Your task to perform on an android device: toggle pop-ups in chrome Image 0: 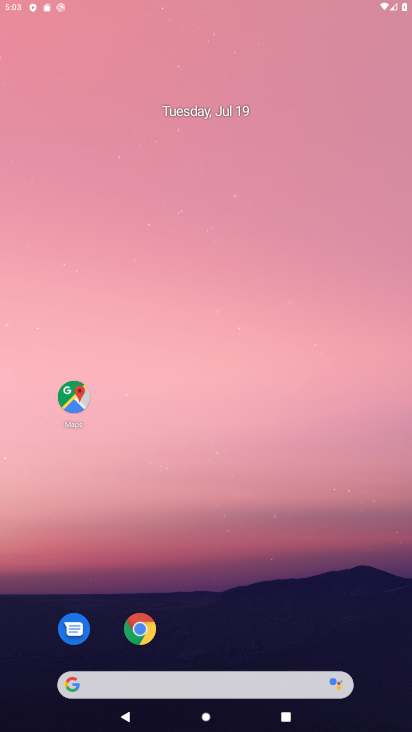
Step 0: press home button
Your task to perform on an android device: toggle pop-ups in chrome Image 1: 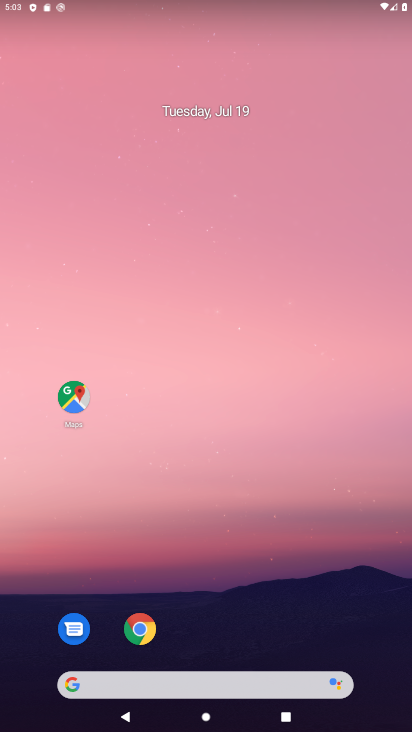
Step 1: drag from (214, 631) to (233, 21)
Your task to perform on an android device: toggle pop-ups in chrome Image 2: 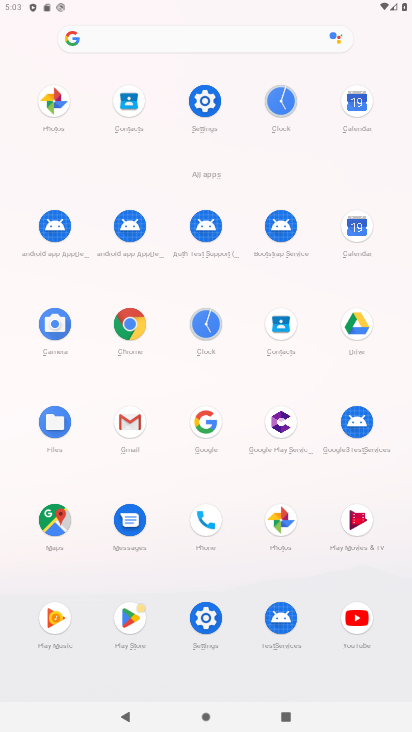
Step 2: click (128, 322)
Your task to perform on an android device: toggle pop-ups in chrome Image 3: 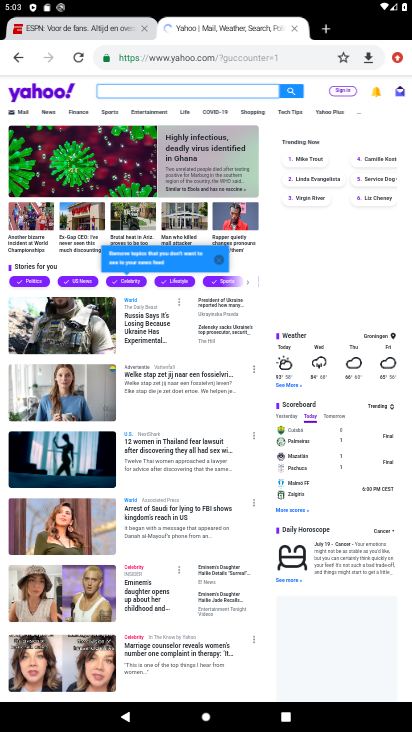
Step 3: drag from (394, 61) to (287, 423)
Your task to perform on an android device: toggle pop-ups in chrome Image 4: 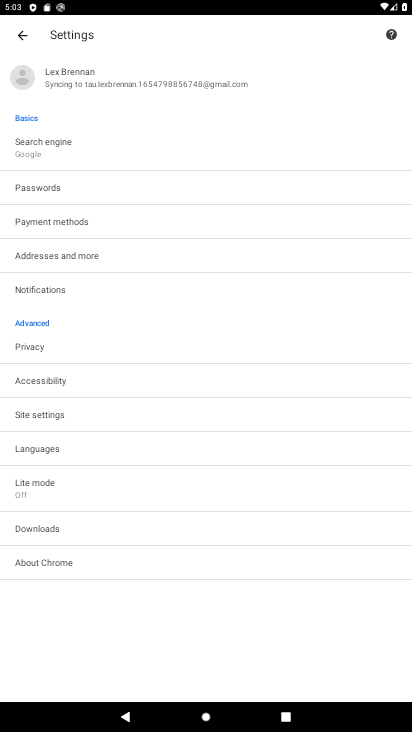
Step 4: click (42, 413)
Your task to perform on an android device: toggle pop-ups in chrome Image 5: 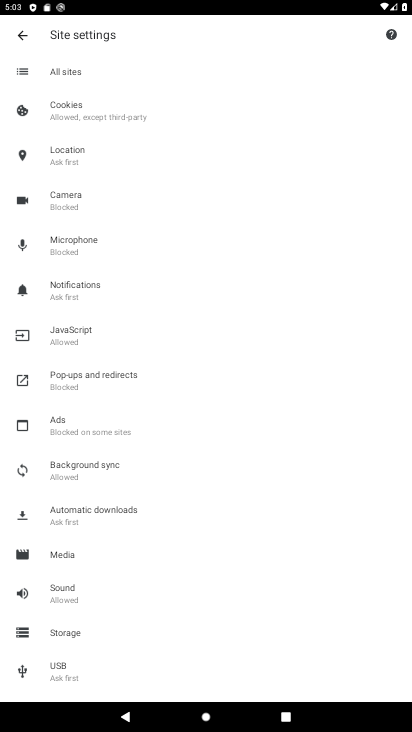
Step 5: click (85, 380)
Your task to perform on an android device: toggle pop-ups in chrome Image 6: 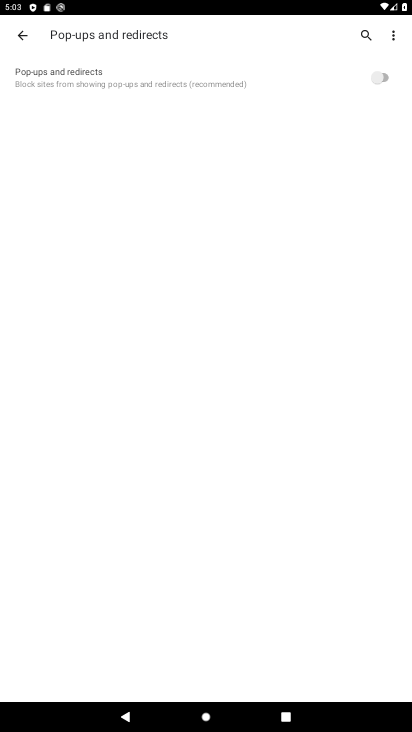
Step 6: click (377, 69)
Your task to perform on an android device: toggle pop-ups in chrome Image 7: 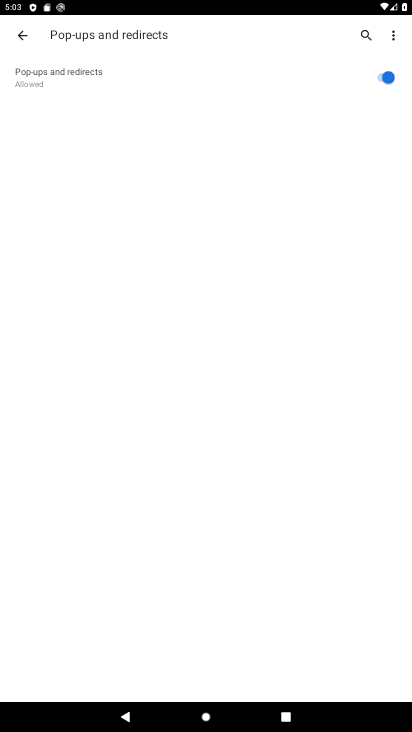
Step 7: task complete